Your task to perform on an android device: turn off improve location accuracy Image 0: 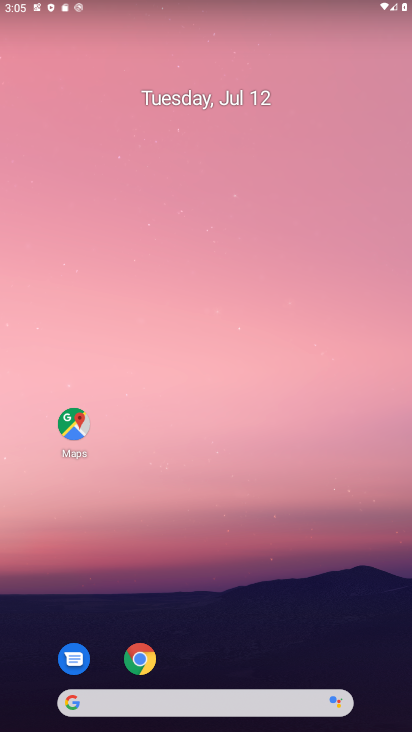
Step 0: drag from (229, 721) to (224, 59)
Your task to perform on an android device: turn off improve location accuracy Image 1: 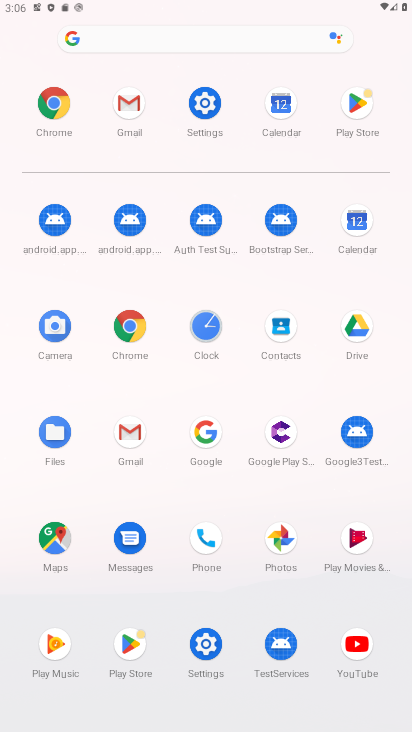
Step 1: click (206, 104)
Your task to perform on an android device: turn off improve location accuracy Image 2: 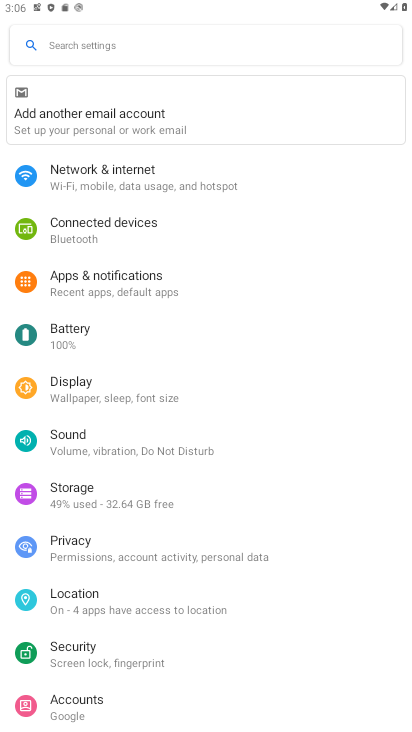
Step 2: click (75, 602)
Your task to perform on an android device: turn off improve location accuracy Image 3: 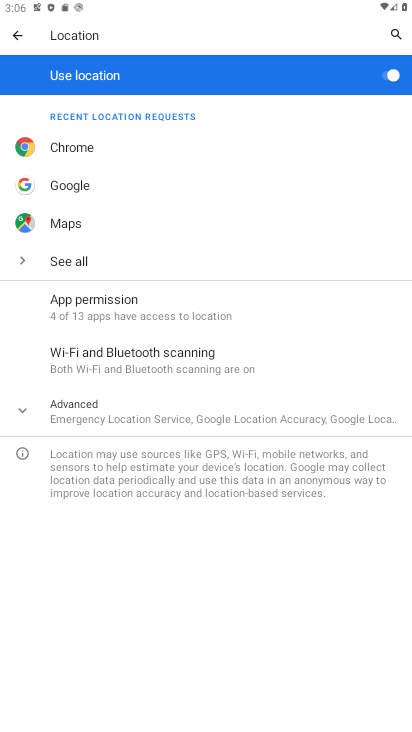
Step 3: press home button
Your task to perform on an android device: turn off improve location accuracy Image 4: 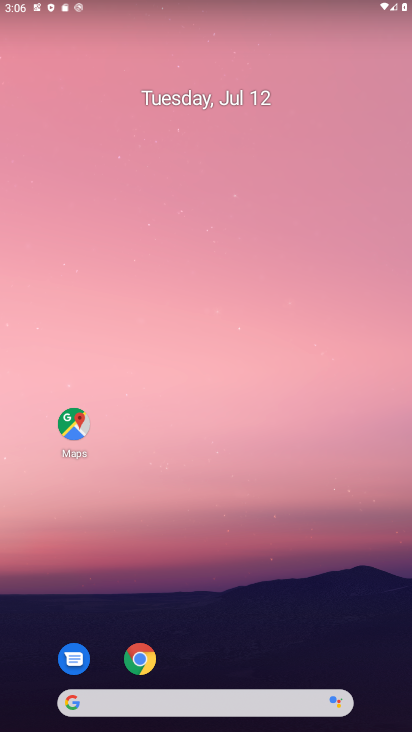
Step 4: drag from (233, 721) to (226, 158)
Your task to perform on an android device: turn off improve location accuracy Image 5: 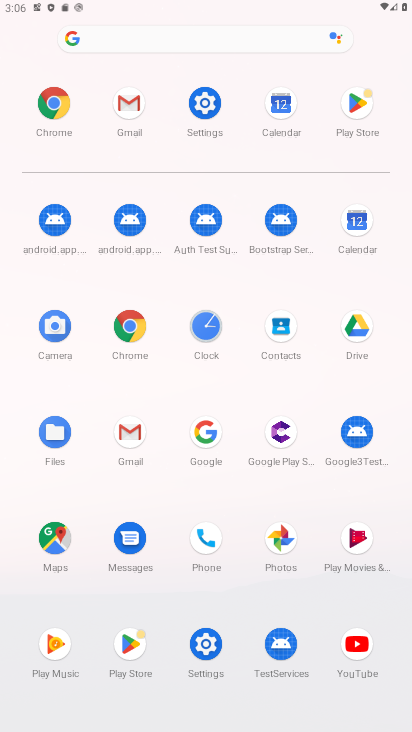
Step 5: click (199, 110)
Your task to perform on an android device: turn off improve location accuracy Image 6: 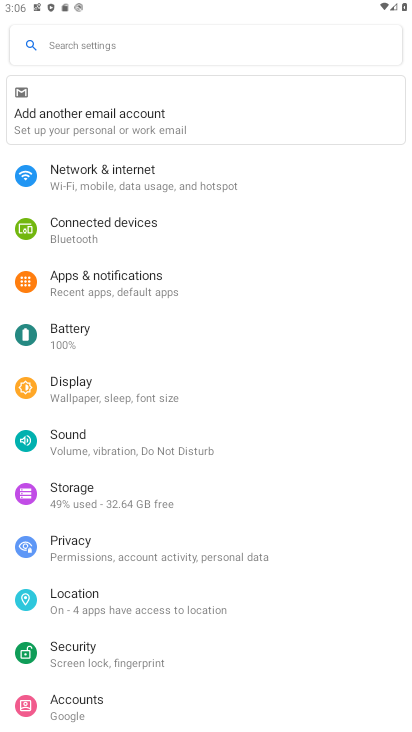
Step 6: click (73, 598)
Your task to perform on an android device: turn off improve location accuracy Image 7: 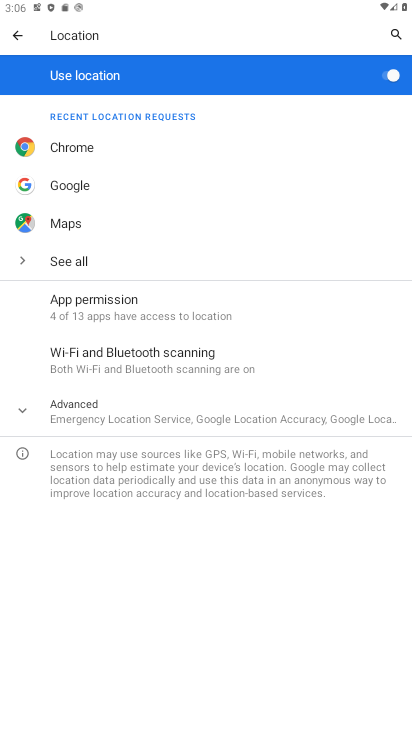
Step 7: click (99, 410)
Your task to perform on an android device: turn off improve location accuracy Image 8: 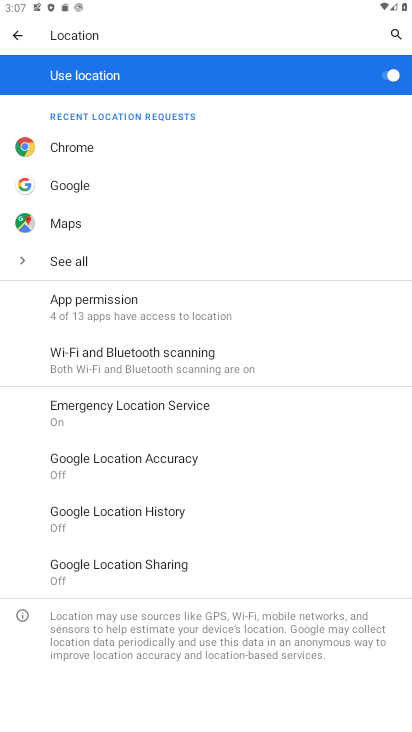
Step 8: click (139, 460)
Your task to perform on an android device: turn off improve location accuracy Image 9: 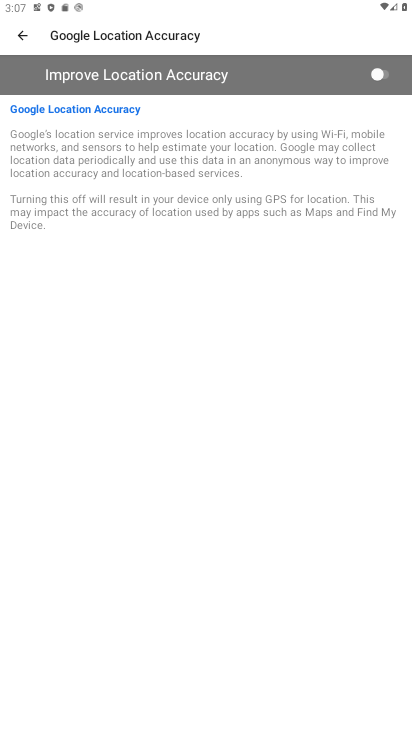
Step 9: task complete